Your task to perform on an android device: Go to ESPN.com Image 0: 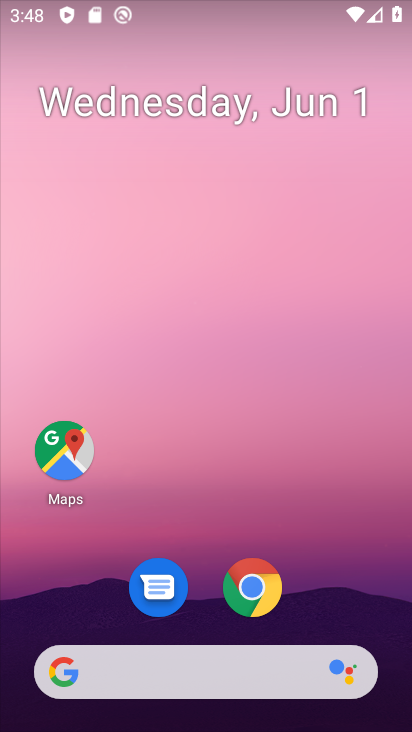
Step 0: click (254, 583)
Your task to perform on an android device: Go to ESPN.com Image 1: 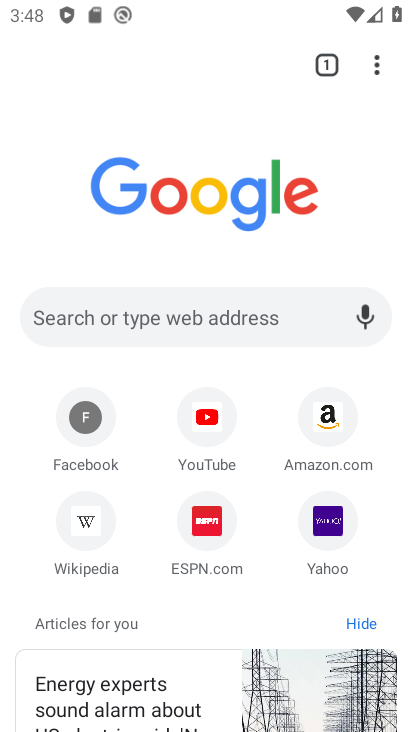
Step 1: click (252, 315)
Your task to perform on an android device: Go to ESPN.com Image 2: 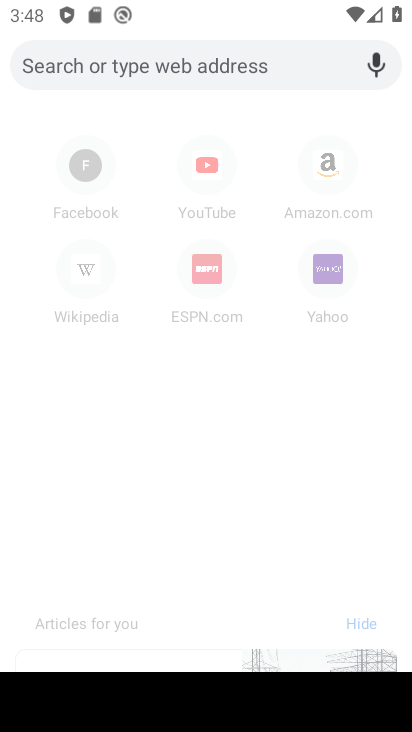
Step 2: click (212, 274)
Your task to perform on an android device: Go to ESPN.com Image 3: 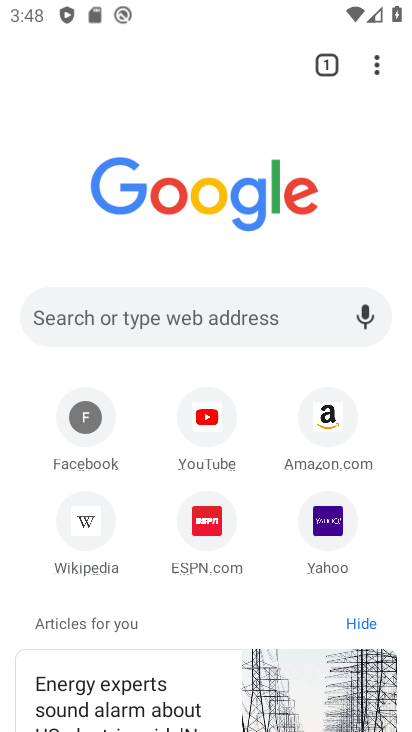
Step 3: click (219, 510)
Your task to perform on an android device: Go to ESPN.com Image 4: 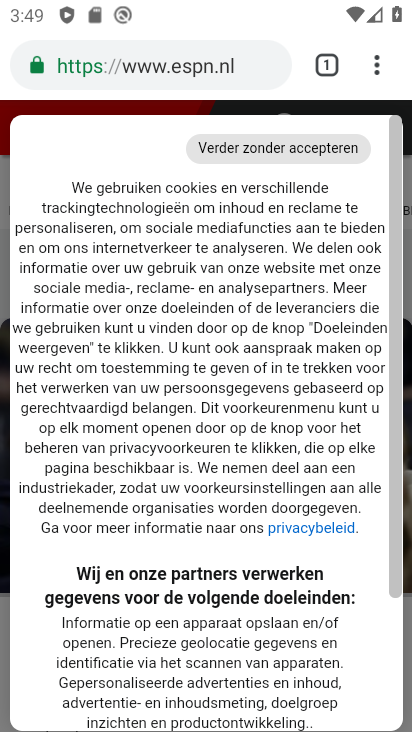
Step 4: task complete